Your task to perform on an android device: set the timer Image 0: 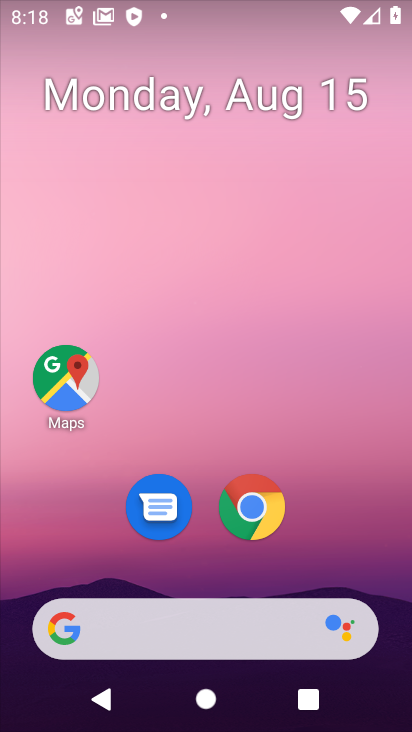
Step 0: drag from (296, 545) to (288, 49)
Your task to perform on an android device: set the timer Image 1: 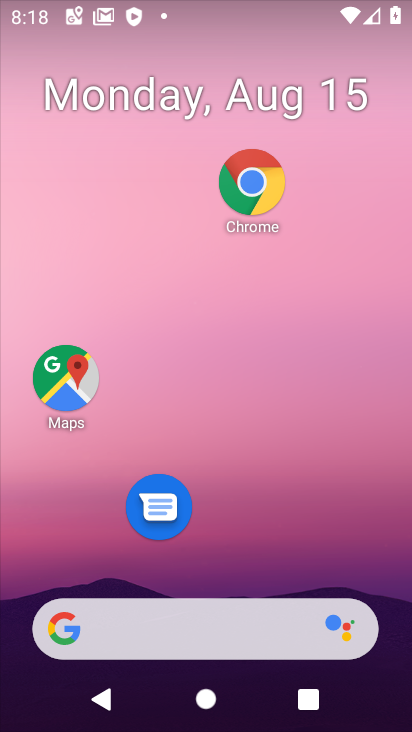
Step 1: drag from (284, 513) to (286, 37)
Your task to perform on an android device: set the timer Image 2: 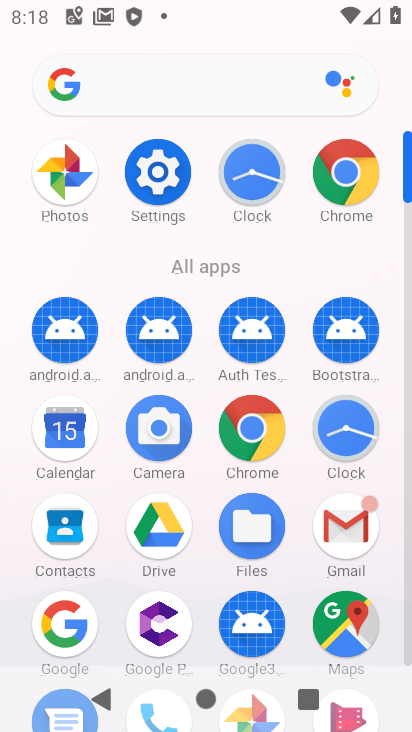
Step 2: click (256, 220)
Your task to perform on an android device: set the timer Image 3: 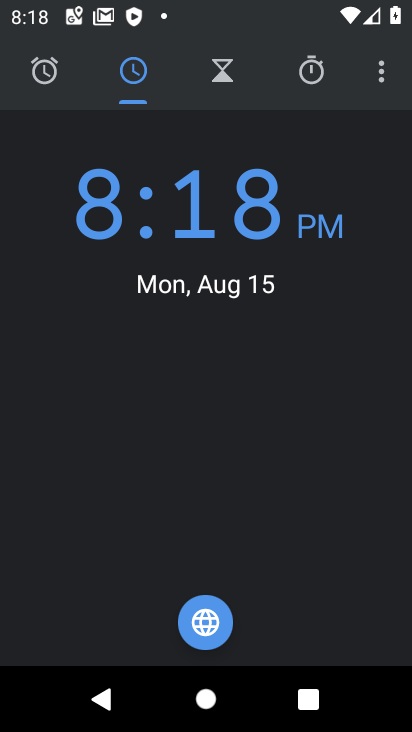
Step 3: click (307, 102)
Your task to perform on an android device: set the timer Image 4: 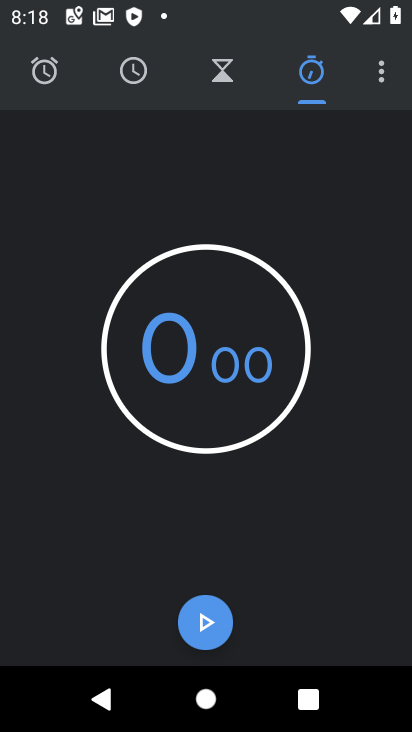
Step 4: task complete